Your task to perform on an android device: Open Google Chrome and click the shortcut for Amazon.com Image 0: 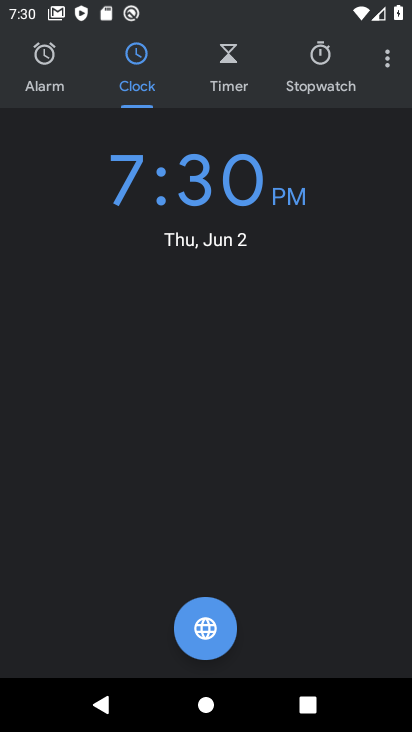
Step 0: press home button
Your task to perform on an android device: Open Google Chrome and click the shortcut for Amazon.com Image 1: 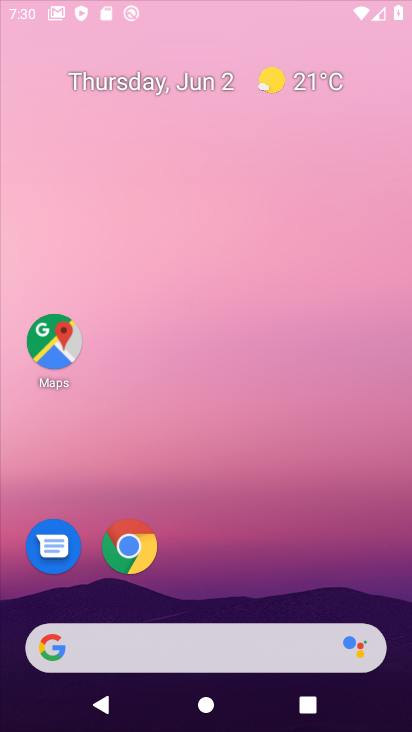
Step 1: drag from (286, 434) to (229, 99)
Your task to perform on an android device: Open Google Chrome and click the shortcut for Amazon.com Image 2: 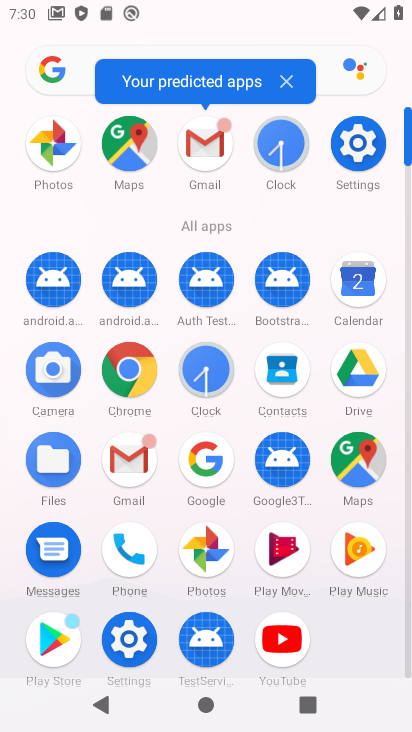
Step 2: click (123, 372)
Your task to perform on an android device: Open Google Chrome and click the shortcut for Amazon.com Image 3: 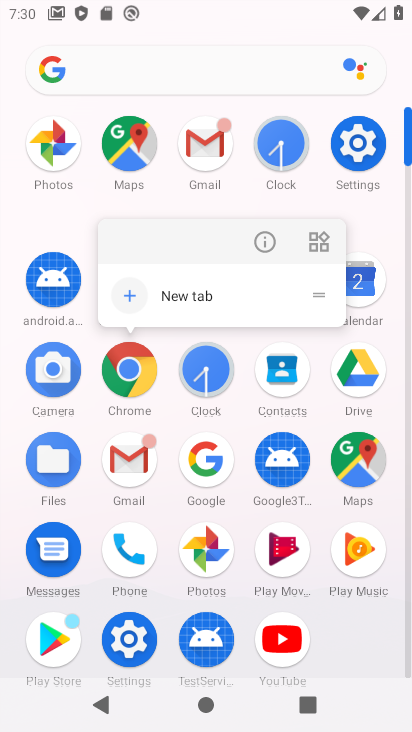
Step 3: click (122, 383)
Your task to perform on an android device: Open Google Chrome and click the shortcut for Amazon.com Image 4: 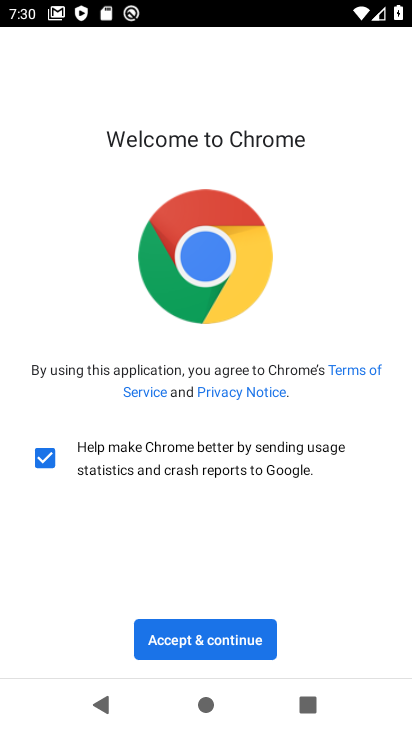
Step 4: click (216, 635)
Your task to perform on an android device: Open Google Chrome and click the shortcut for Amazon.com Image 5: 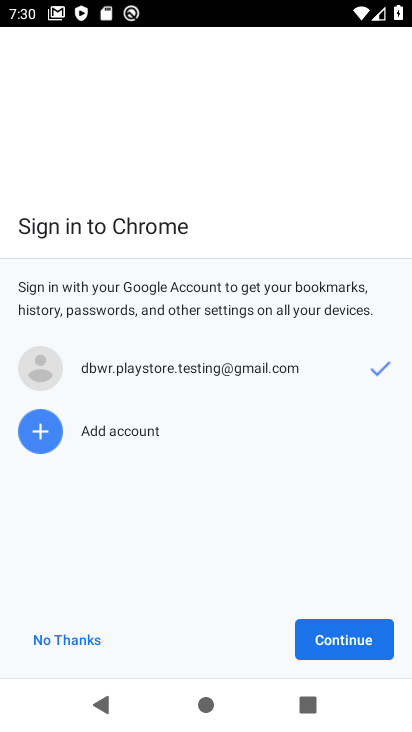
Step 5: click (329, 645)
Your task to perform on an android device: Open Google Chrome and click the shortcut for Amazon.com Image 6: 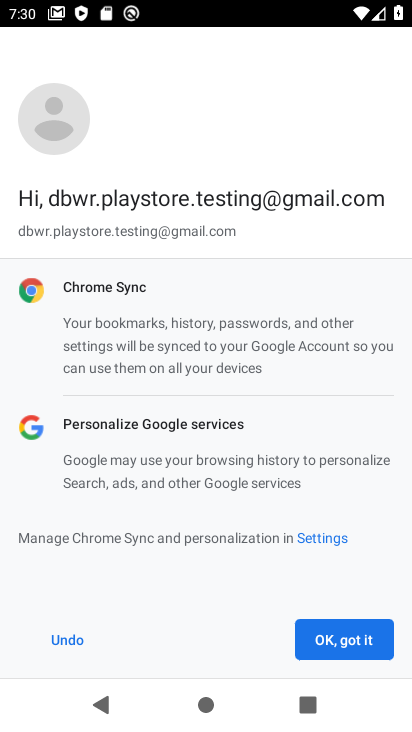
Step 6: click (329, 645)
Your task to perform on an android device: Open Google Chrome and click the shortcut for Amazon.com Image 7: 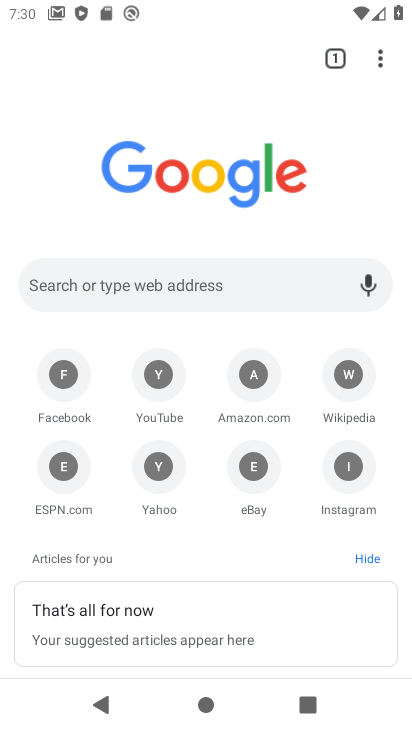
Step 7: drag from (268, 531) to (301, 324)
Your task to perform on an android device: Open Google Chrome and click the shortcut for Amazon.com Image 8: 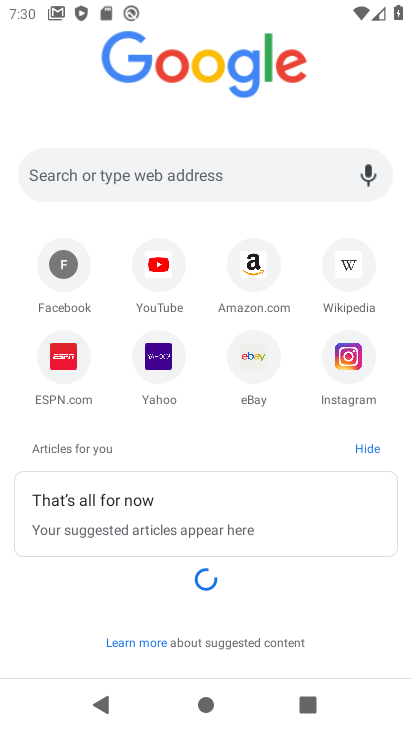
Step 8: click (269, 285)
Your task to perform on an android device: Open Google Chrome and click the shortcut for Amazon.com Image 9: 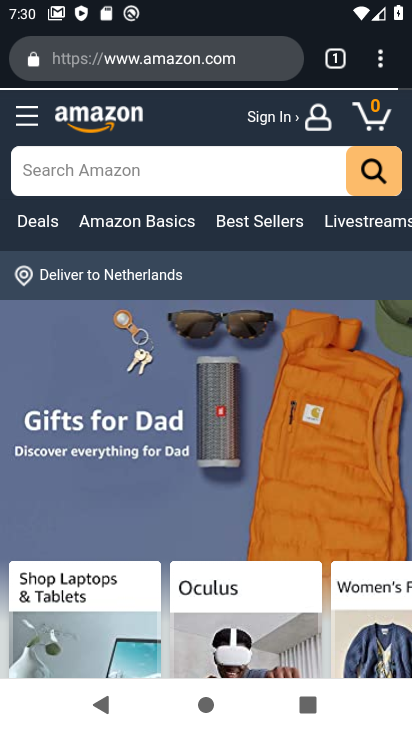
Step 9: task complete